Your task to perform on an android device: Open Maps and search for coffee Image 0: 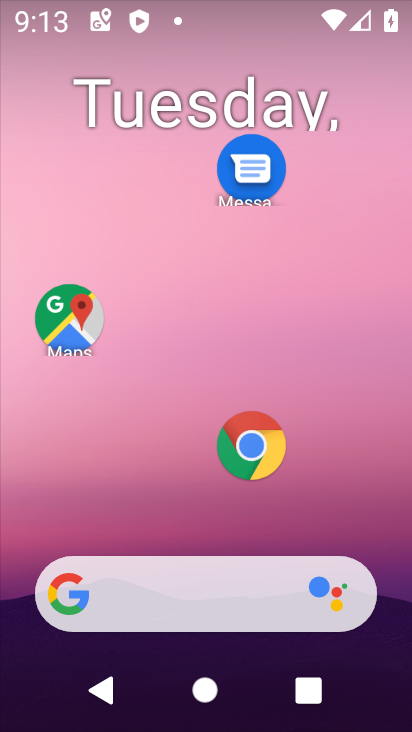
Step 0: drag from (177, 414) to (233, 51)
Your task to perform on an android device: Open Maps and search for coffee Image 1: 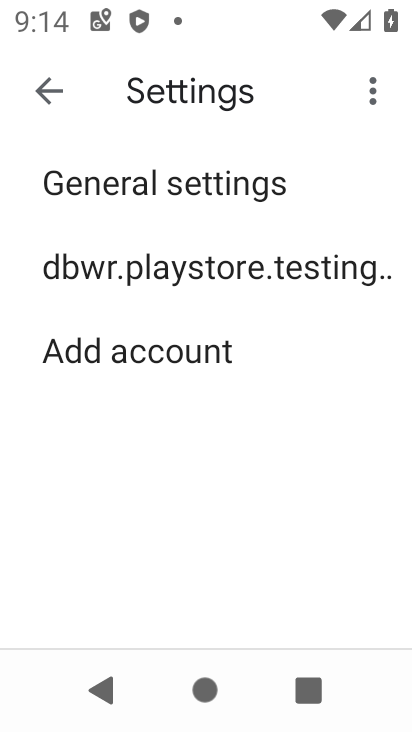
Step 1: press back button
Your task to perform on an android device: Open Maps and search for coffee Image 2: 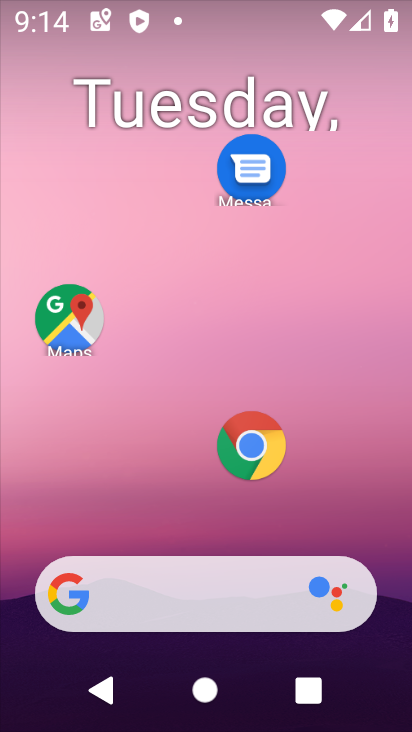
Step 2: click (65, 315)
Your task to perform on an android device: Open Maps and search for coffee Image 3: 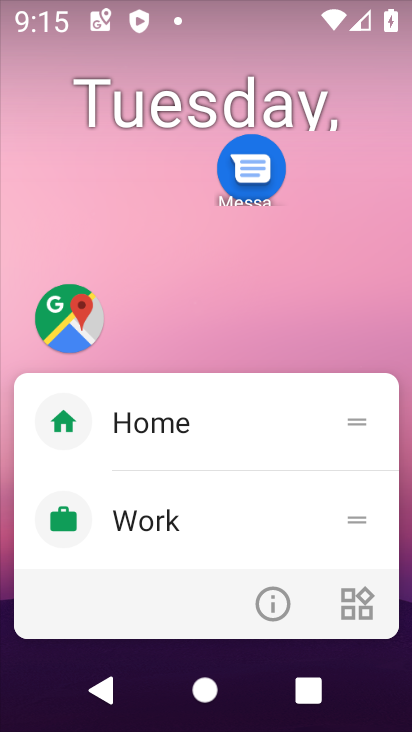
Step 3: click (75, 304)
Your task to perform on an android device: Open Maps and search for coffee Image 4: 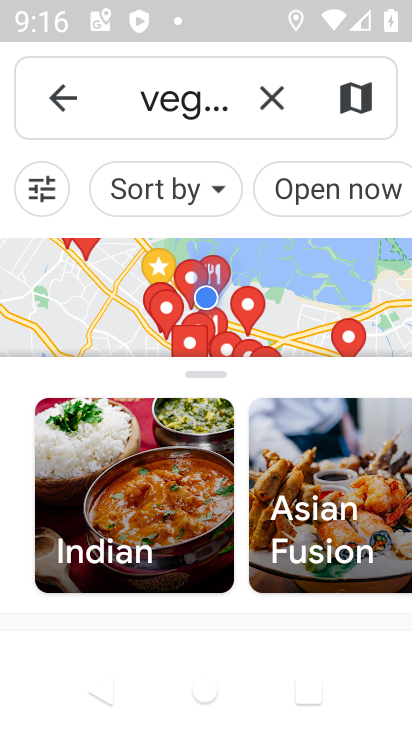
Step 4: click (274, 102)
Your task to perform on an android device: Open Maps and search for coffee Image 5: 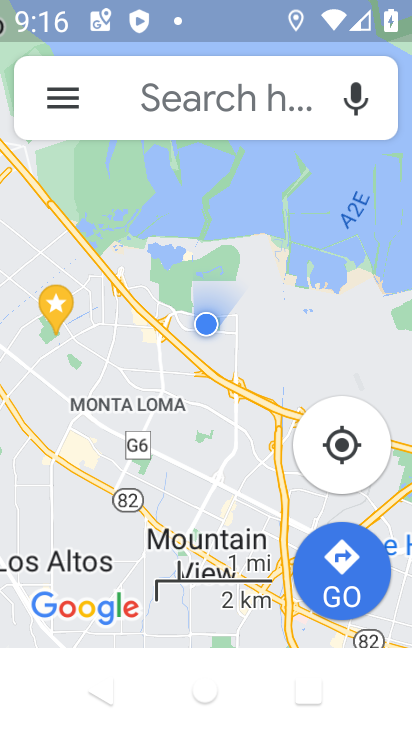
Step 5: click (171, 100)
Your task to perform on an android device: Open Maps and search for coffee Image 6: 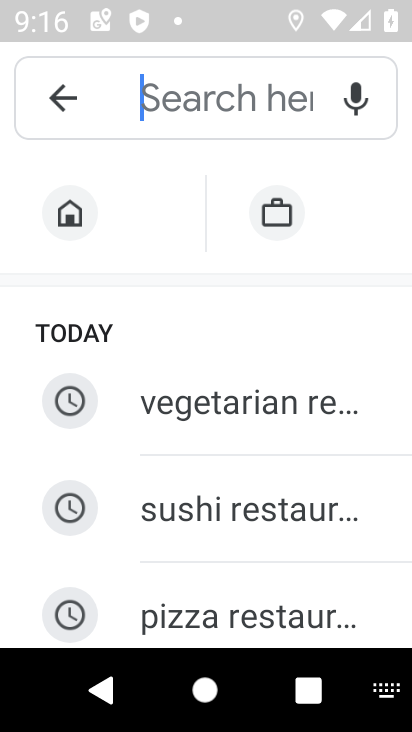
Step 6: type "cofee"
Your task to perform on an android device: Open Maps and search for coffee Image 7: 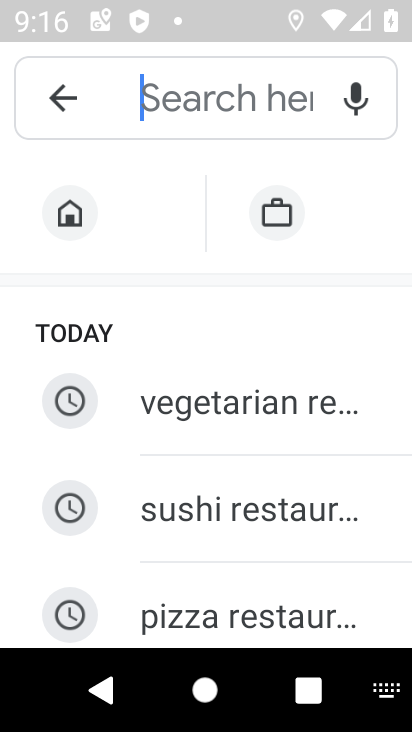
Step 7: drag from (238, 250) to (257, 152)
Your task to perform on an android device: Open Maps and search for coffee Image 8: 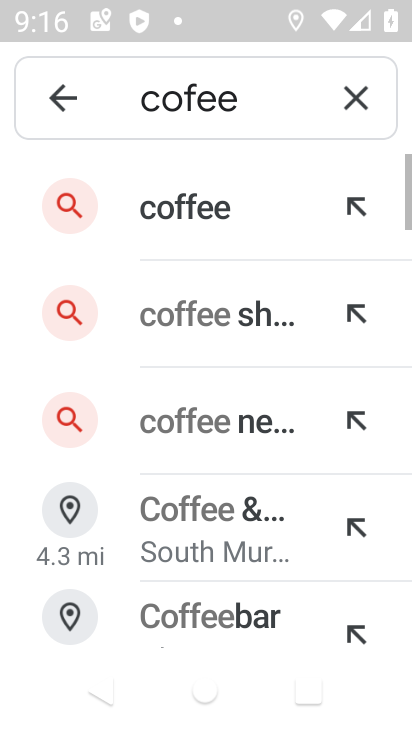
Step 8: click (228, 234)
Your task to perform on an android device: Open Maps and search for coffee Image 9: 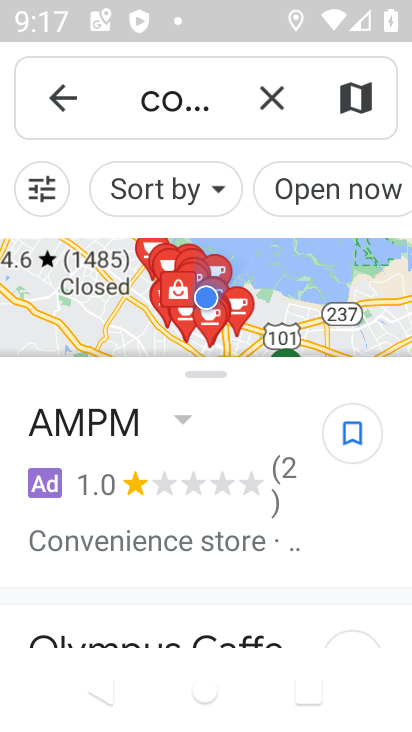
Step 9: task complete